Your task to perform on an android device: open app "Spotify" (install if not already installed) and go to login screen Image 0: 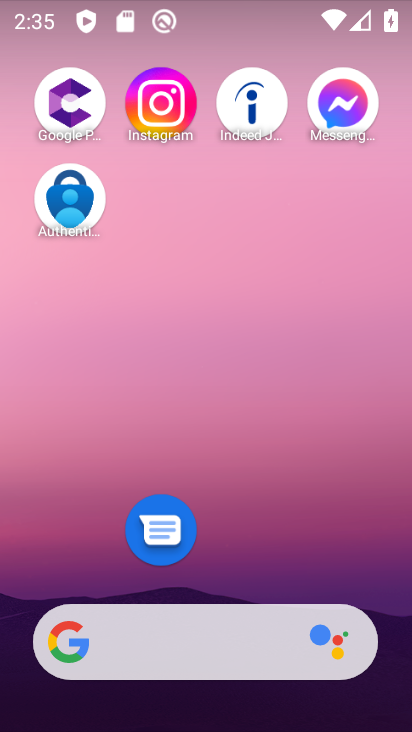
Step 0: drag from (234, 563) to (278, 66)
Your task to perform on an android device: open app "Spotify" (install if not already installed) and go to login screen Image 1: 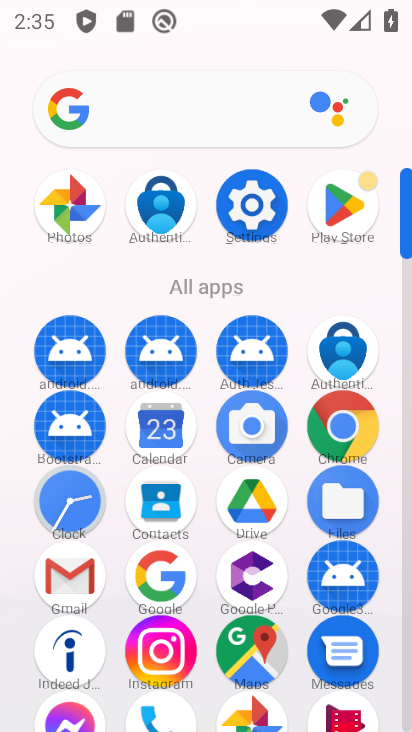
Step 1: click (357, 213)
Your task to perform on an android device: open app "Spotify" (install if not already installed) and go to login screen Image 2: 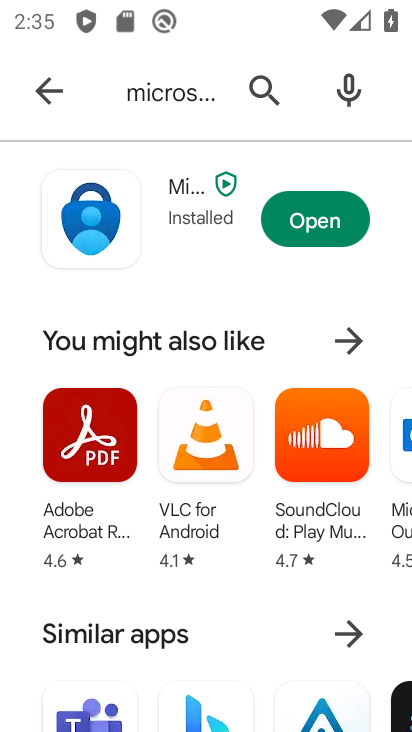
Step 2: click (153, 102)
Your task to perform on an android device: open app "Spotify" (install if not already installed) and go to login screen Image 3: 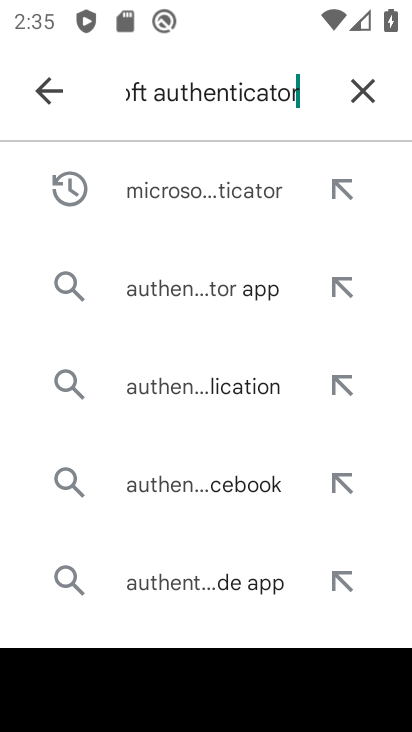
Step 3: click (359, 86)
Your task to perform on an android device: open app "Spotify" (install if not already installed) and go to login screen Image 4: 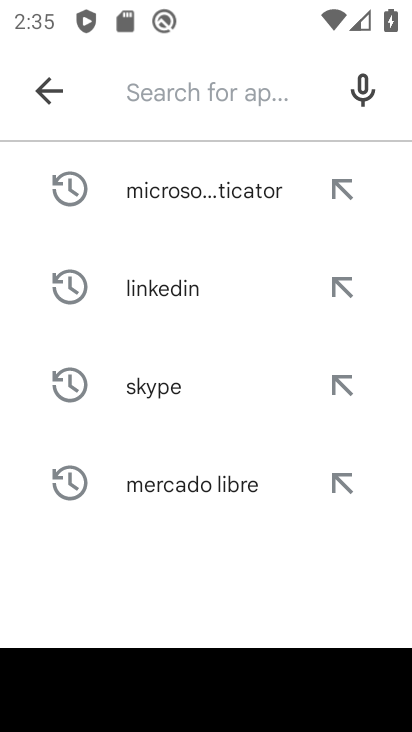
Step 4: type "spotify"
Your task to perform on an android device: open app "Spotify" (install if not already installed) and go to login screen Image 5: 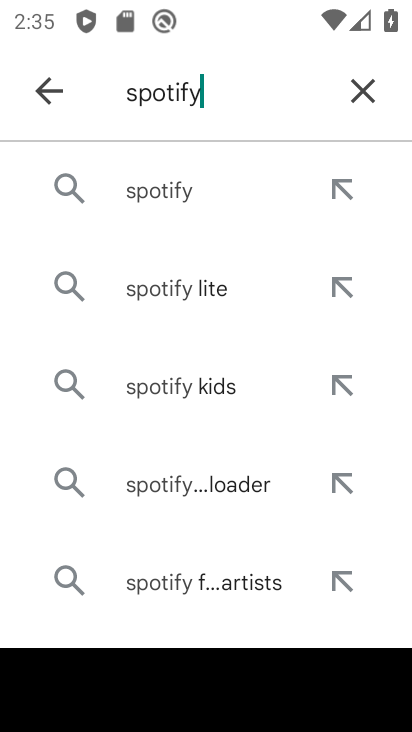
Step 5: click (180, 190)
Your task to perform on an android device: open app "Spotify" (install if not already installed) and go to login screen Image 6: 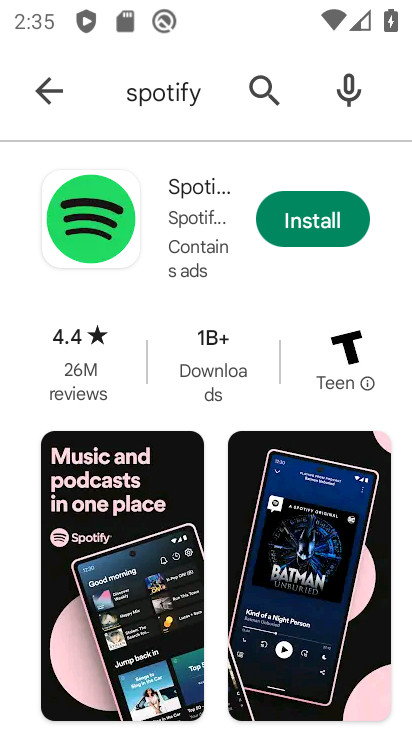
Step 6: click (334, 214)
Your task to perform on an android device: open app "Spotify" (install if not already installed) and go to login screen Image 7: 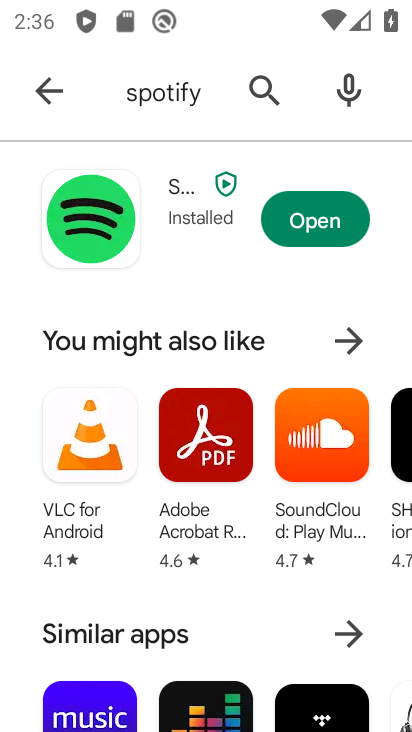
Step 7: click (341, 240)
Your task to perform on an android device: open app "Spotify" (install if not already installed) and go to login screen Image 8: 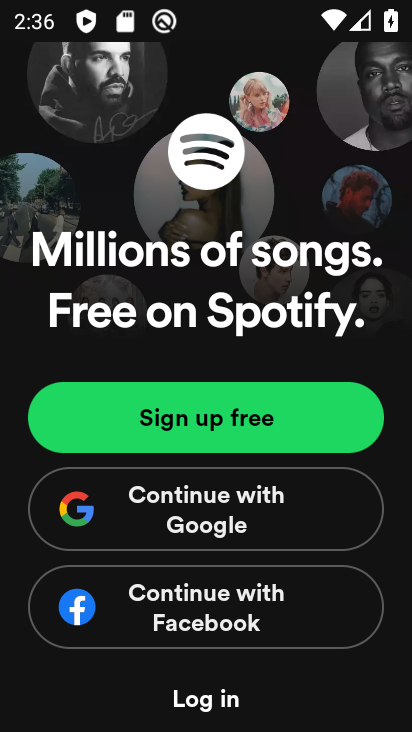
Step 8: click (220, 695)
Your task to perform on an android device: open app "Spotify" (install if not already installed) and go to login screen Image 9: 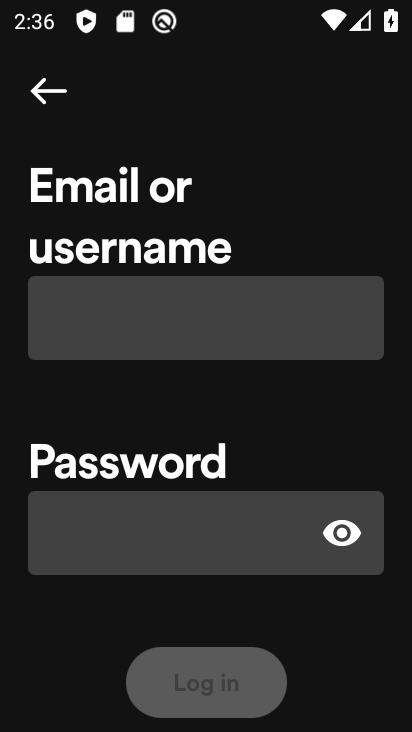
Step 9: task complete